Your task to perform on an android device: Open the calendar app, open the side menu, and click the "Day" option Image 0: 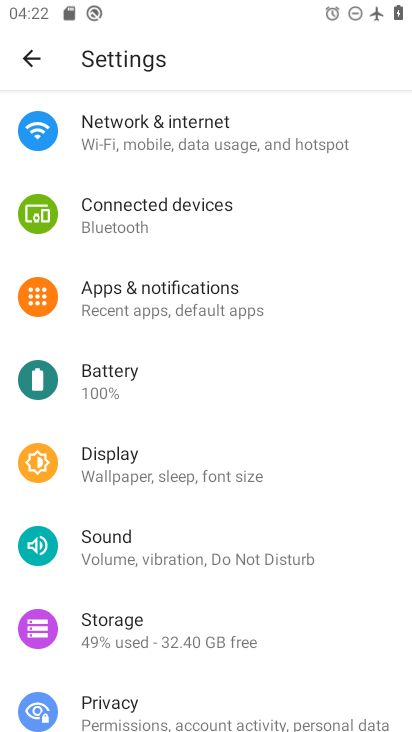
Step 0: press home button
Your task to perform on an android device: Open the calendar app, open the side menu, and click the "Day" option Image 1: 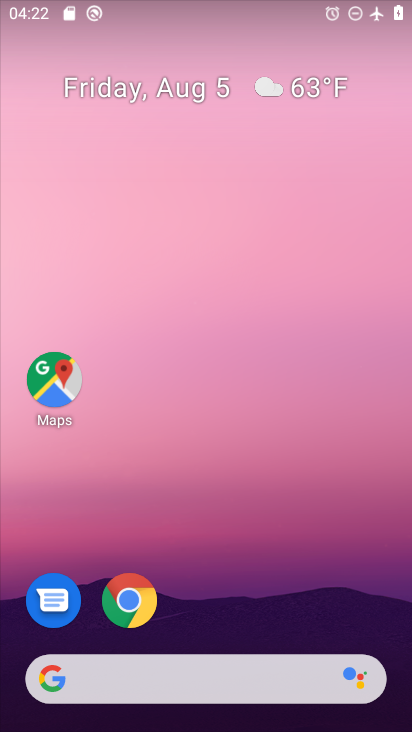
Step 1: drag from (232, 677) to (374, 78)
Your task to perform on an android device: Open the calendar app, open the side menu, and click the "Day" option Image 2: 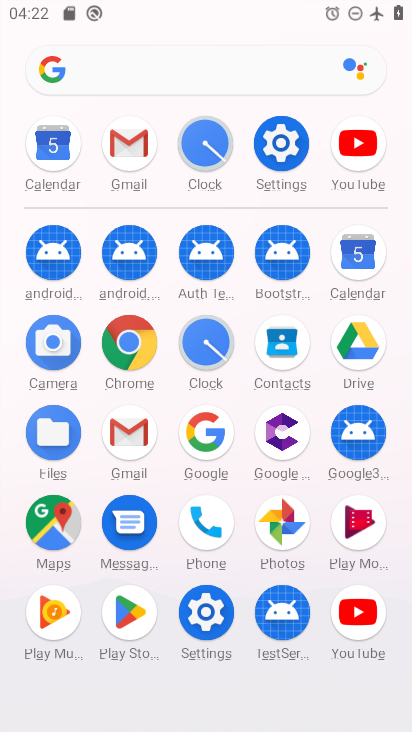
Step 2: click (359, 256)
Your task to perform on an android device: Open the calendar app, open the side menu, and click the "Day" option Image 3: 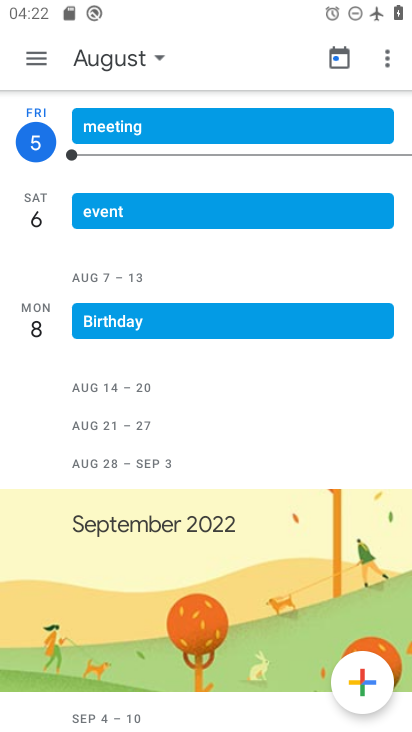
Step 3: click (39, 60)
Your task to perform on an android device: Open the calendar app, open the side menu, and click the "Day" option Image 4: 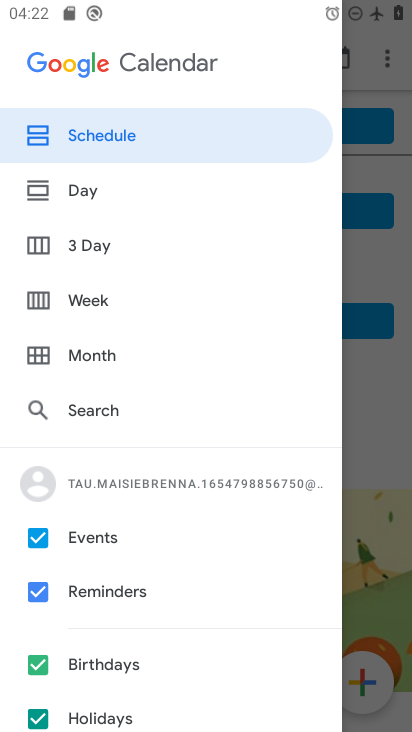
Step 4: click (87, 195)
Your task to perform on an android device: Open the calendar app, open the side menu, and click the "Day" option Image 5: 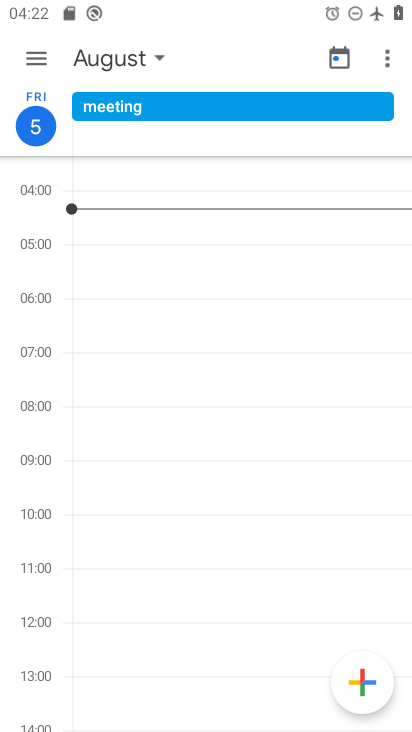
Step 5: task complete